Your task to perform on an android device: change text size in settings app Image 0: 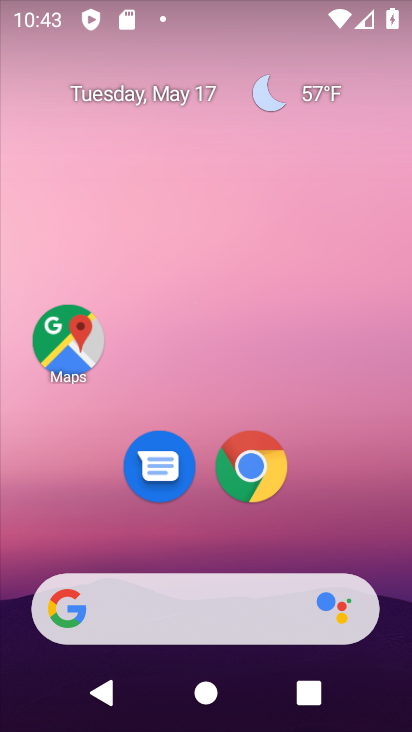
Step 0: click (244, 471)
Your task to perform on an android device: change text size in settings app Image 1: 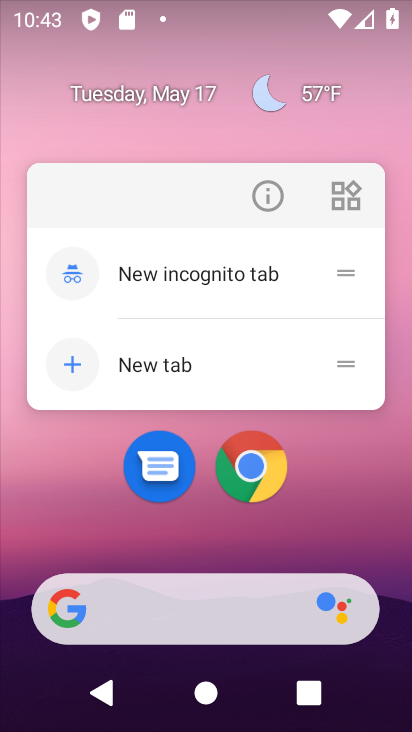
Step 1: click (261, 476)
Your task to perform on an android device: change text size in settings app Image 2: 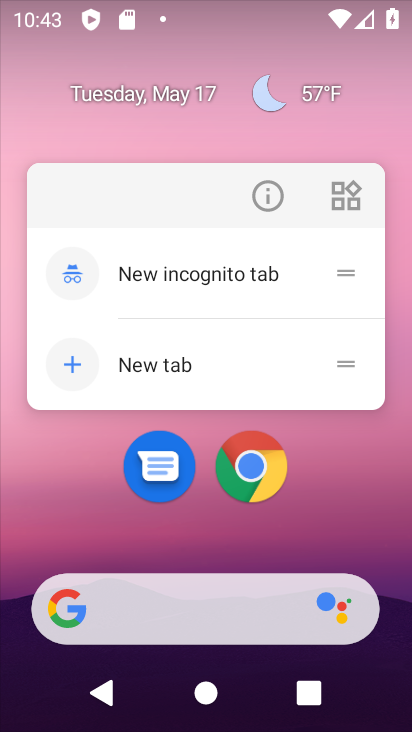
Step 2: click (252, 468)
Your task to perform on an android device: change text size in settings app Image 3: 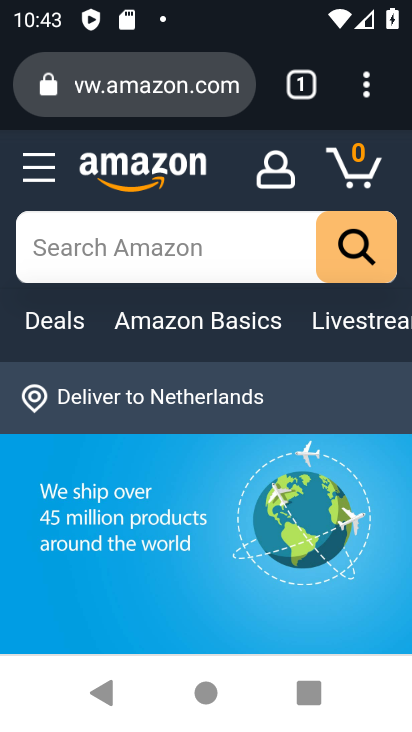
Step 3: task complete